Your task to perform on an android device: Open the Play Movies app and select the watchlist tab. Image 0: 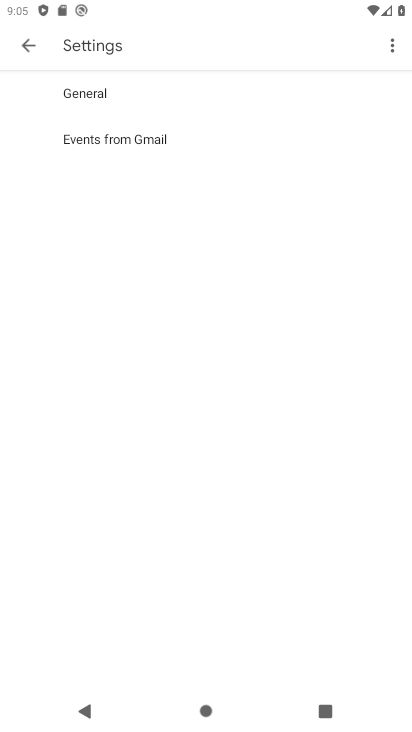
Step 0: press home button
Your task to perform on an android device: Open the Play Movies app and select the watchlist tab. Image 1: 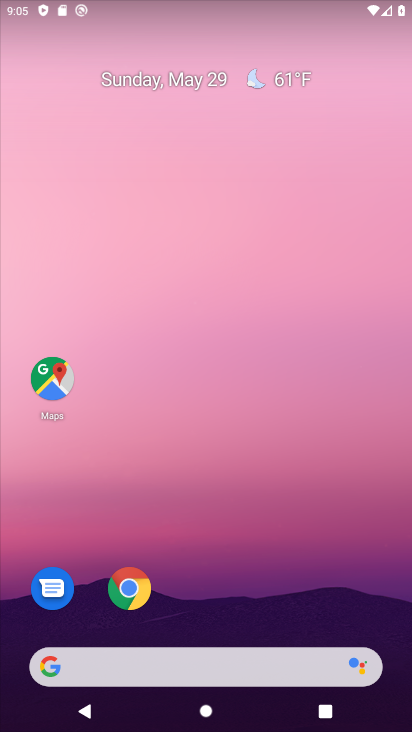
Step 1: drag from (329, 540) to (275, 80)
Your task to perform on an android device: Open the Play Movies app and select the watchlist tab. Image 2: 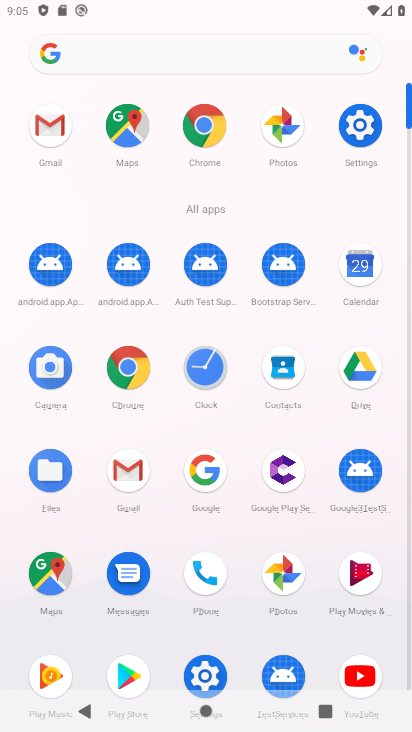
Step 2: drag from (317, 531) to (339, 201)
Your task to perform on an android device: Open the Play Movies app and select the watchlist tab. Image 3: 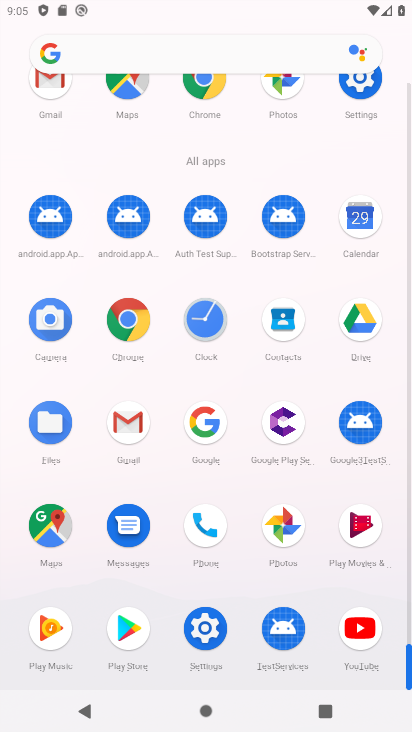
Step 3: click (373, 523)
Your task to perform on an android device: Open the Play Movies app and select the watchlist tab. Image 4: 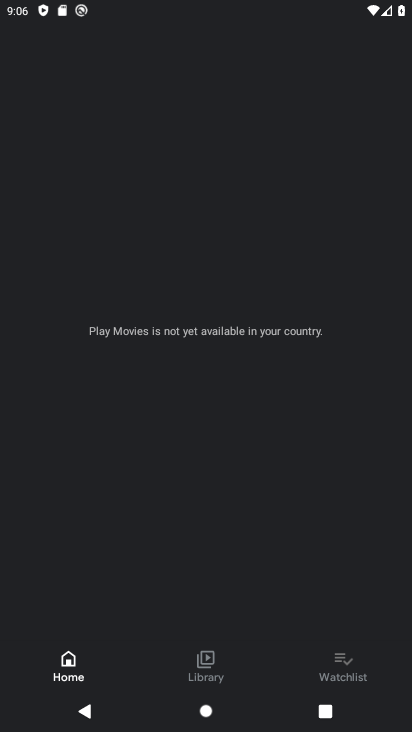
Step 4: click (349, 658)
Your task to perform on an android device: Open the Play Movies app and select the watchlist tab. Image 5: 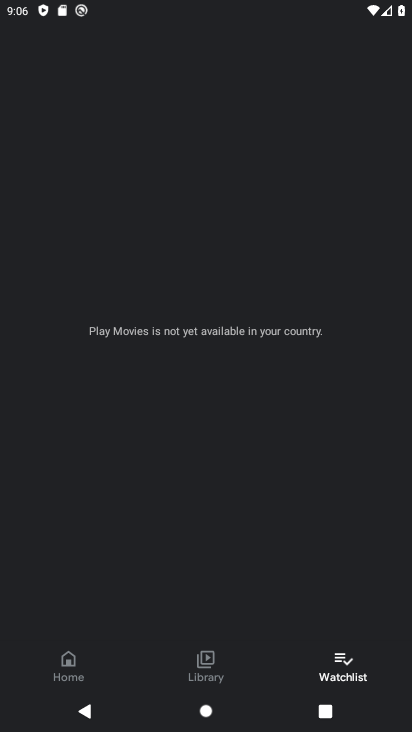
Step 5: task complete